Your task to perform on an android device: Set the phone to "Do not disturb". Image 0: 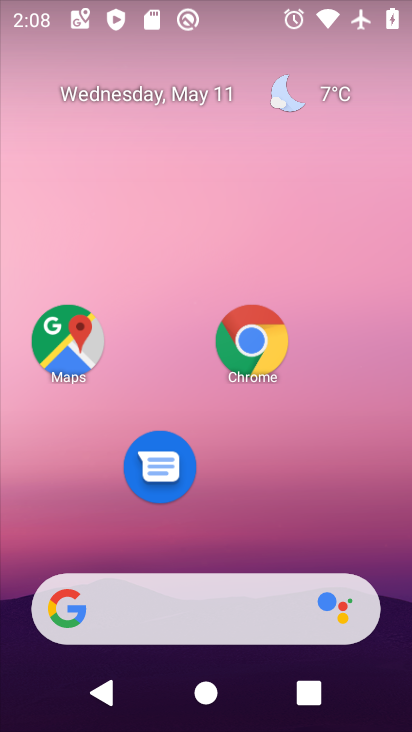
Step 0: drag from (162, 610) to (235, 244)
Your task to perform on an android device: Set the phone to "Do not disturb". Image 1: 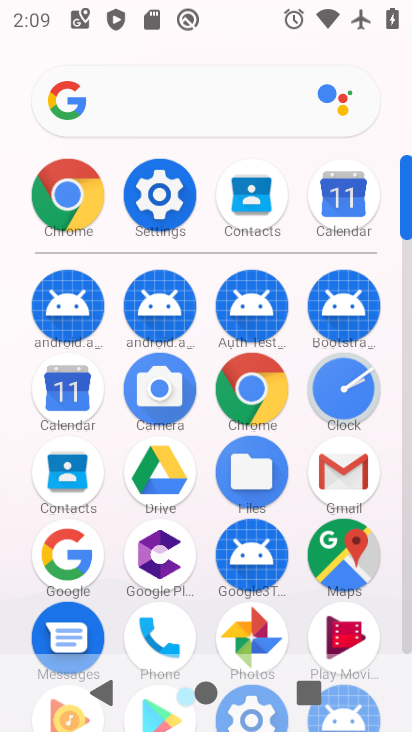
Step 1: click (174, 199)
Your task to perform on an android device: Set the phone to "Do not disturb". Image 2: 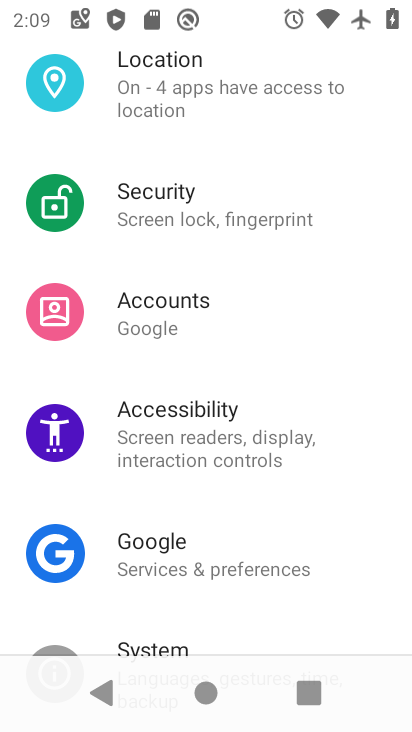
Step 2: drag from (288, 183) to (291, 601)
Your task to perform on an android device: Set the phone to "Do not disturb". Image 3: 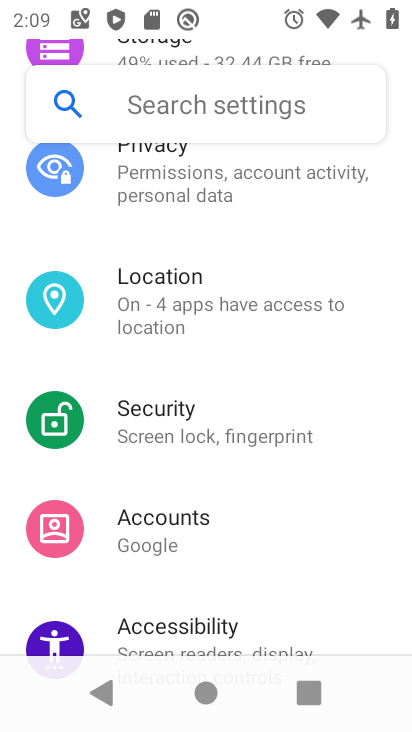
Step 3: drag from (274, 273) to (257, 590)
Your task to perform on an android device: Set the phone to "Do not disturb". Image 4: 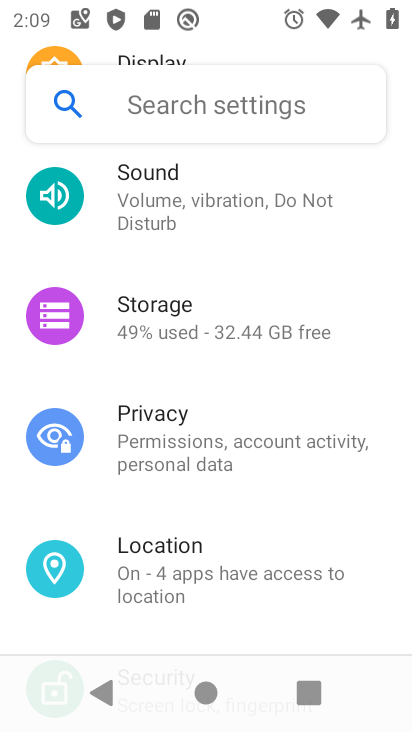
Step 4: click (205, 200)
Your task to perform on an android device: Set the phone to "Do not disturb". Image 5: 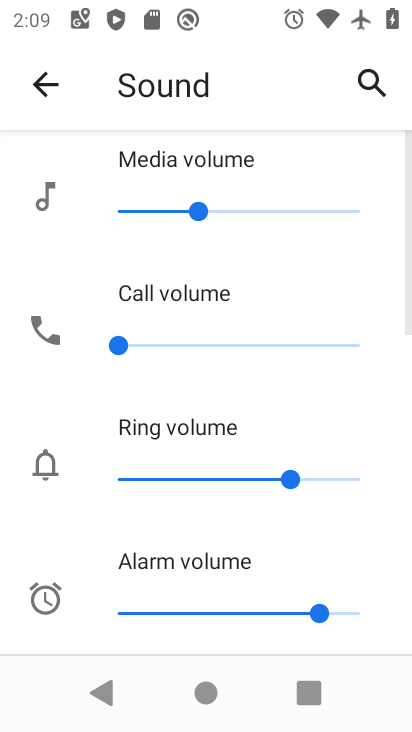
Step 5: drag from (195, 582) to (331, 195)
Your task to perform on an android device: Set the phone to "Do not disturb". Image 6: 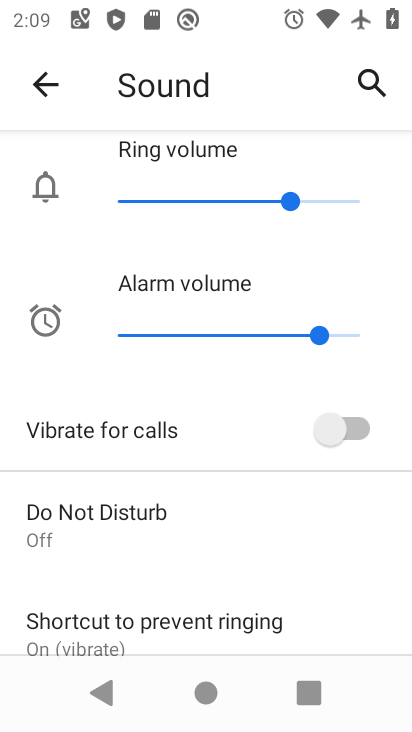
Step 6: click (131, 520)
Your task to perform on an android device: Set the phone to "Do not disturb". Image 7: 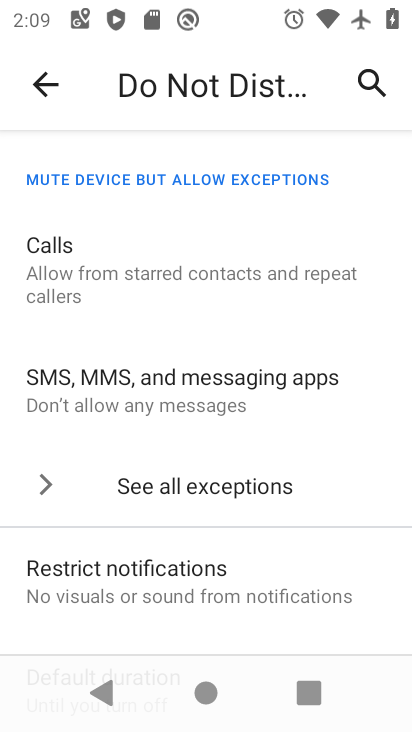
Step 7: drag from (116, 595) to (285, 234)
Your task to perform on an android device: Set the phone to "Do not disturb". Image 8: 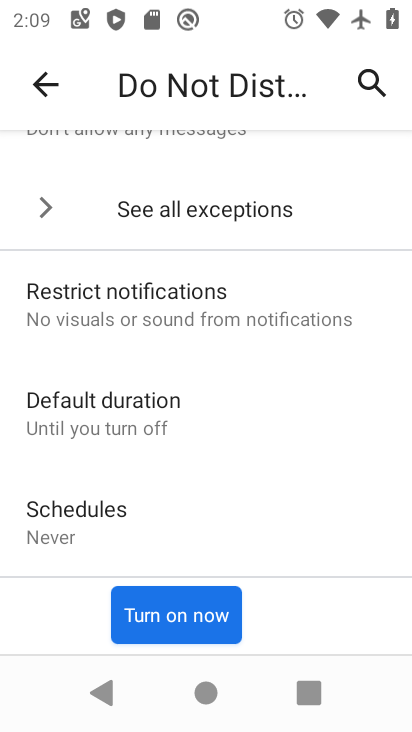
Step 8: click (178, 621)
Your task to perform on an android device: Set the phone to "Do not disturb". Image 9: 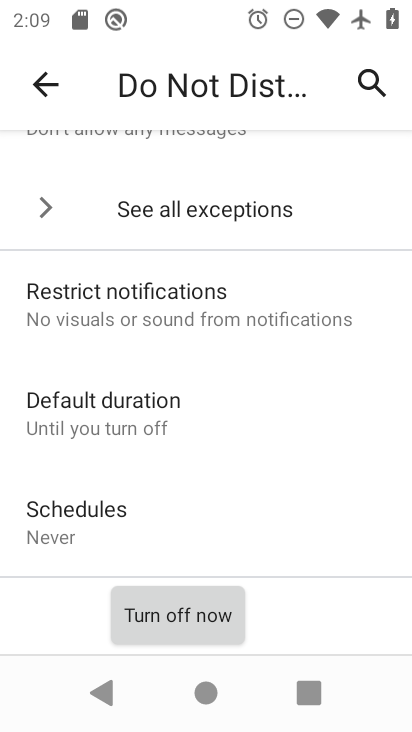
Step 9: task complete